Your task to perform on an android device: toggle notification dots Image 0: 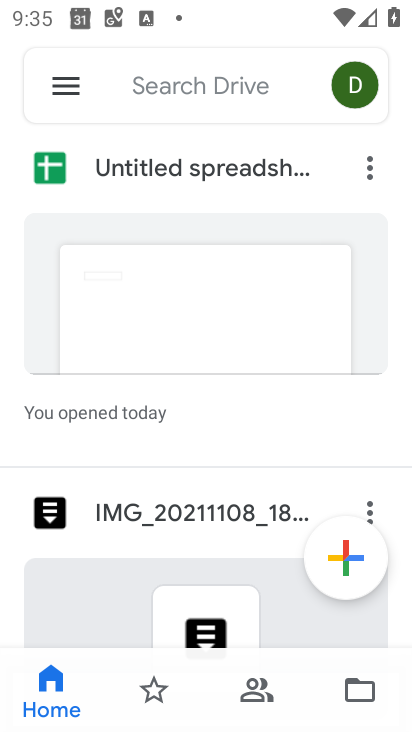
Step 0: press home button
Your task to perform on an android device: toggle notification dots Image 1: 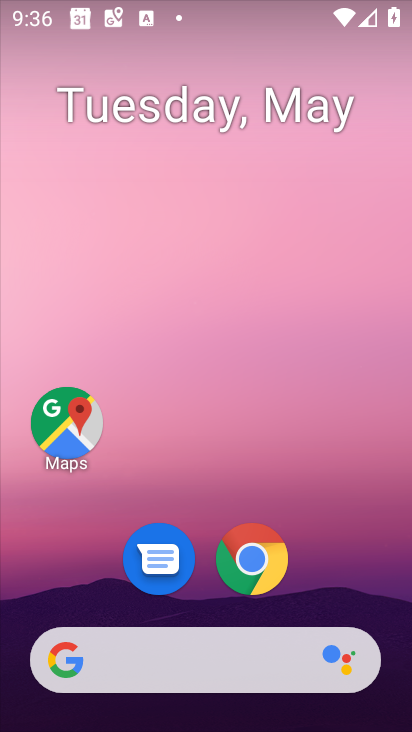
Step 1: click (8, 411)
Your task to perform on an android device: toggle notification dots Image 2: 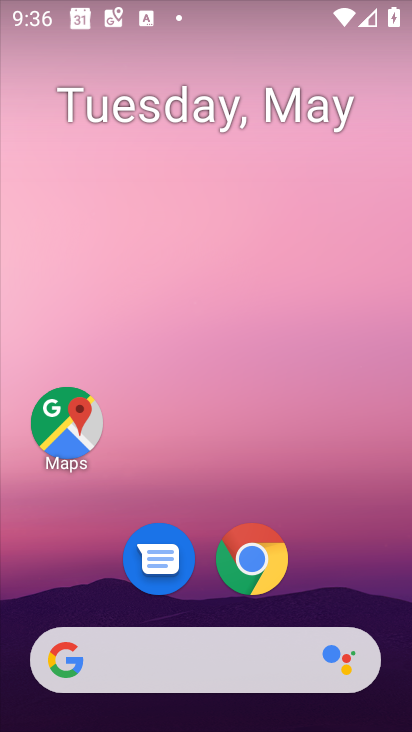
Step 2: drag from (186, 619) to (0, 201)
Your task to perform on an android device: toggle notification dots Image 3: 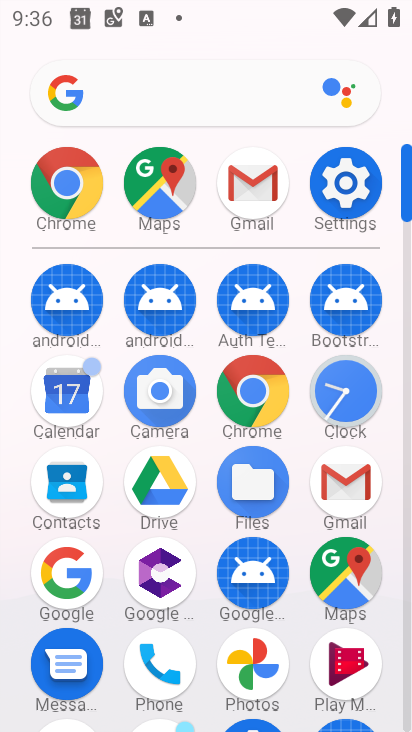
Step 3: click (361, 203)
Your task to perform on an android device: toggle notification dots Image 4: 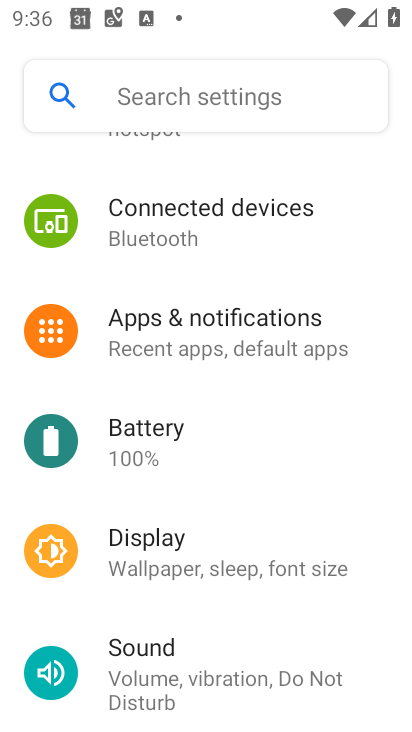
Step 4: click (178, 362)
Your task to perform on an android device: toggle notification dots Image 5: 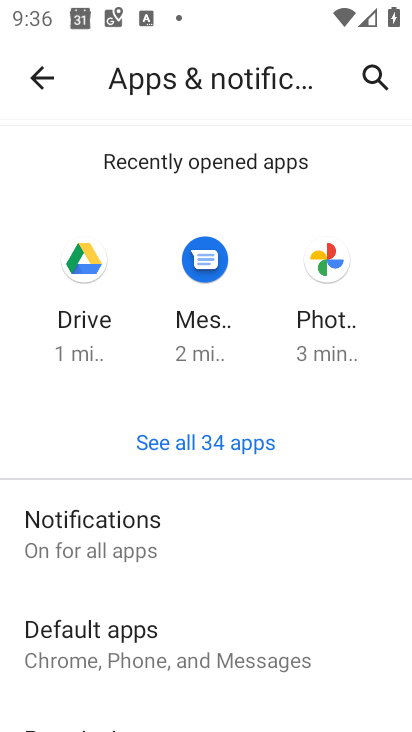
Step 5: click (150, 534)
Your task to perform on an android device: toggle notification dots Image 6: 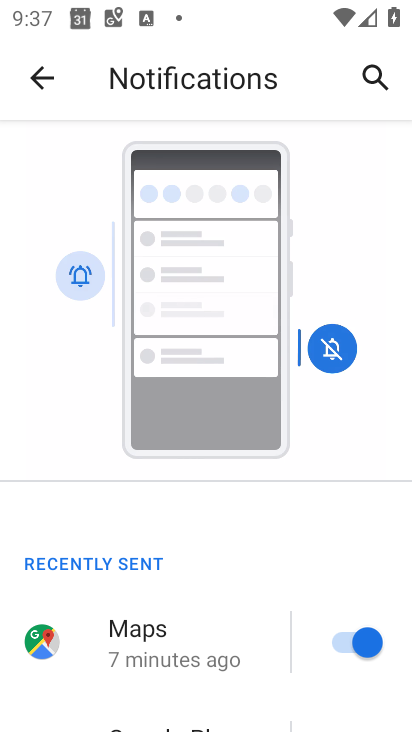
Step 6: drag from (160, 527) to (141, 127)
Your task to perform on an android device: toggle notification dots Image 7: 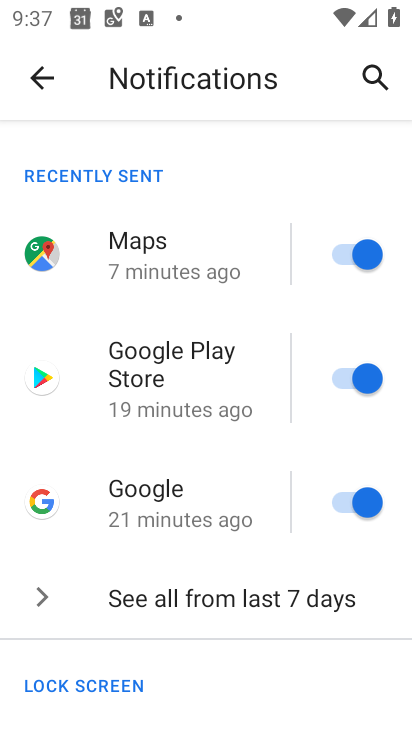
Step 7: drag from (257, 630) to (204, 202)
Your task to perform on an android device: toggle notification dots Image 8: 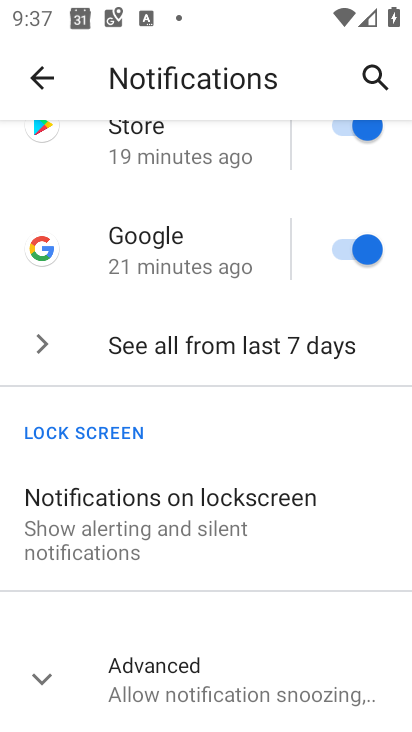
Step 8: click (218, 674)
Your task to perform on an android device: toggle notification dots Image 9: 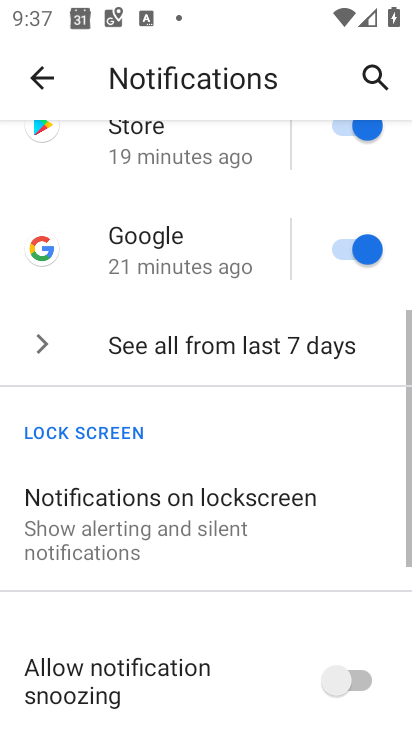
Step 9: drag from (236, 610) to (187, 209)
Your task to perform on an android device: toggle notification dots Image 10: 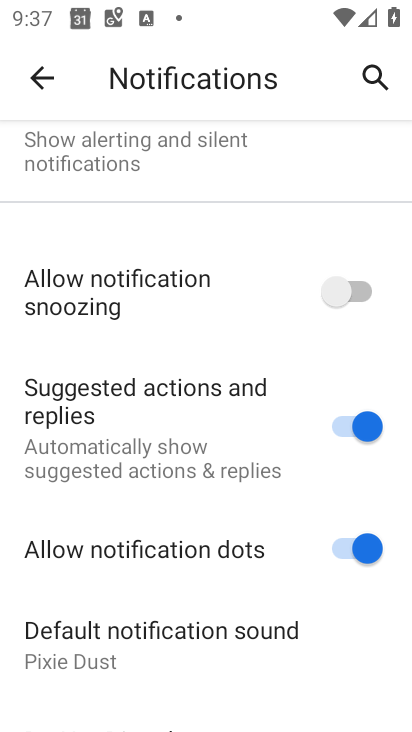
Step 10: click (360, 559)
Your task to perform on an android device: toggle notification dots Image 11: 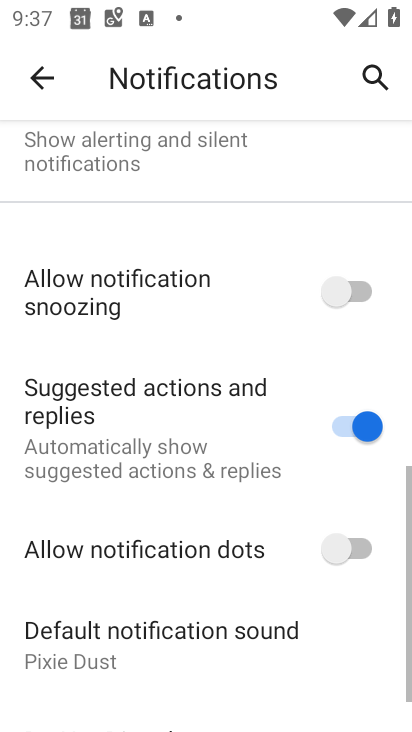
Step 11: task complete